Your task to perform on an android device: Open the map Image 0: 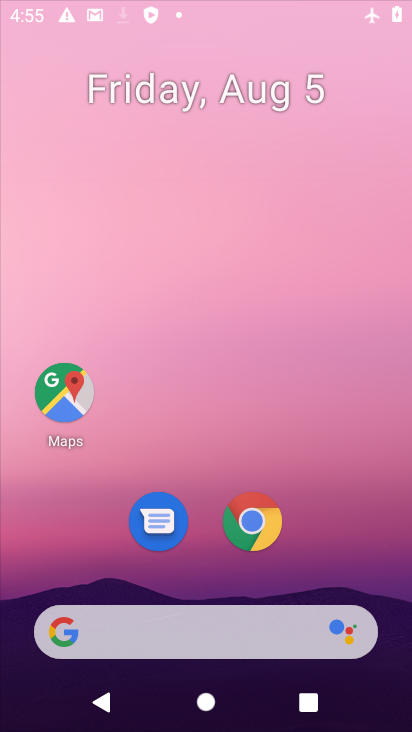
Step 0: click (216, 403)
Your task to perform on an android device: Open the map Image 1: 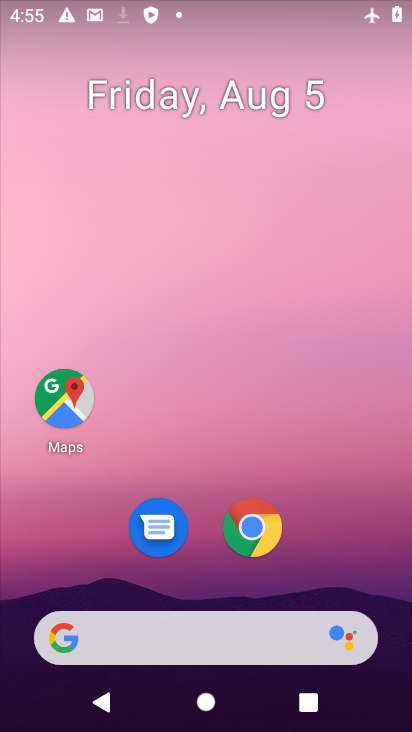
Step 1: drag from (174, 593) to (216, 205)
Your task to perform on an android device: Open the map Image 2: 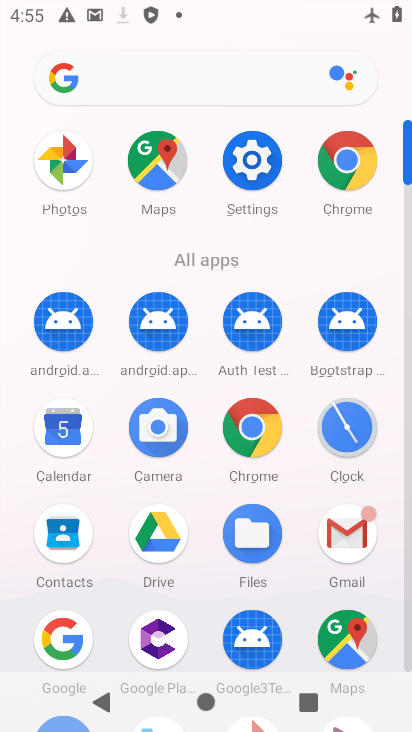
Step 2: click (331, 640)
Your task to perform on an android device: Open the map Image 3: 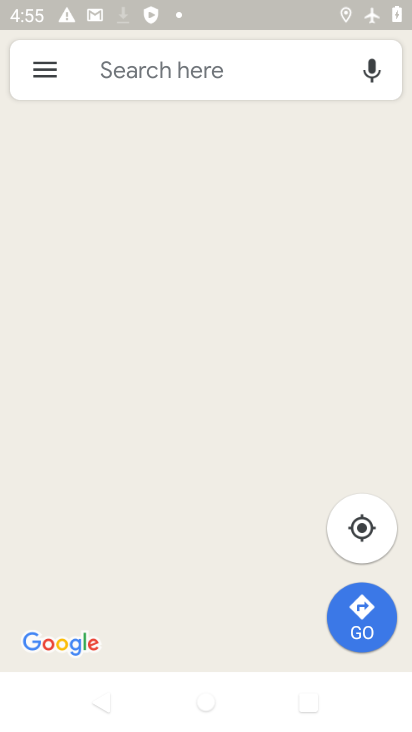
Step 3: task complete